Your task to perform on an android device: turn on showing notifications on the lock screen Image 0: 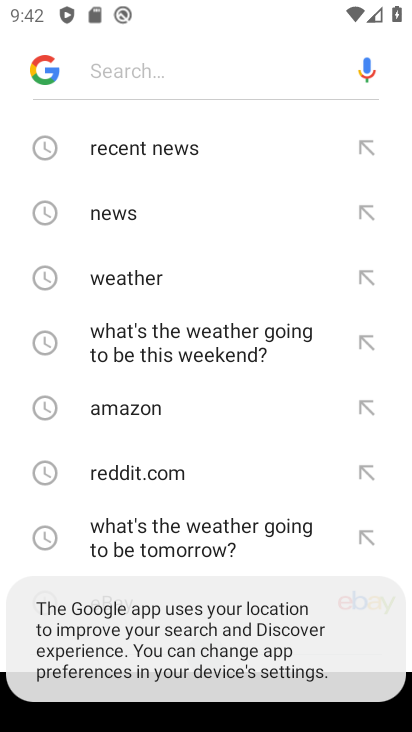
Step 0: press home button
Your task to perform on an android device: turn on showing notifications on the lock screen Image 1: 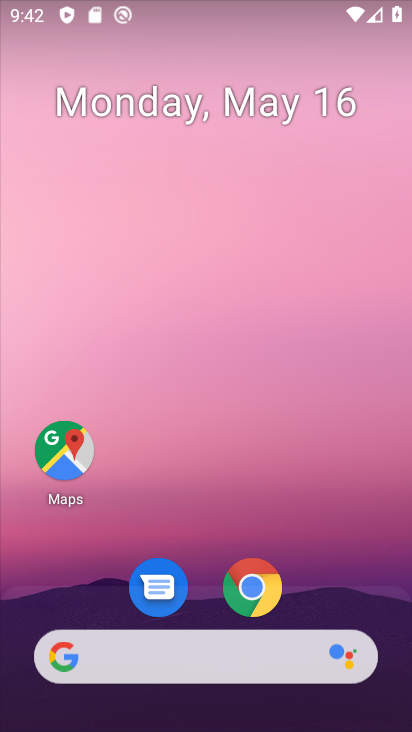
Step 1: drag from (248, 634) to (230, 2)
Your task to perform on an android device: turn on showing notifications on the lock screen Image 2: 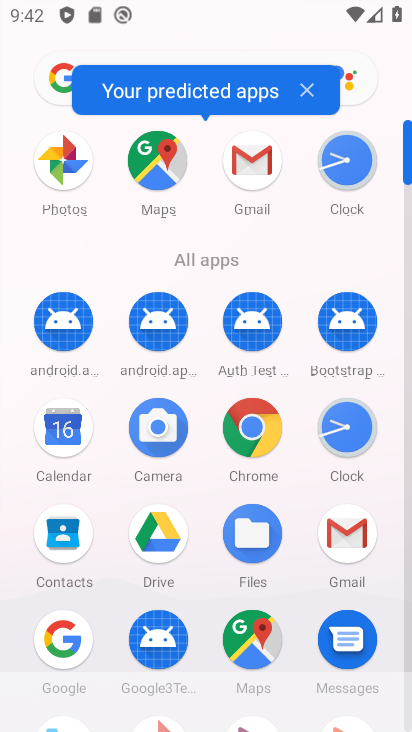
Step 2: drag from (201, 500) to (158, 13)
Your task to perform on an android device: turn on showing notifications on the lock screen Image 3: 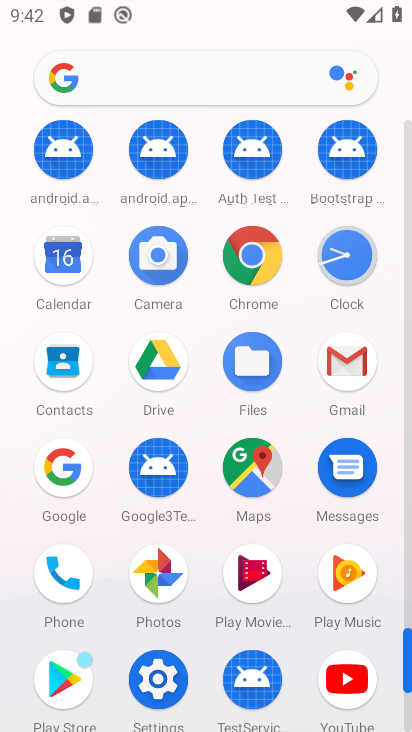
Step 3: click (170, 655)
Your task to perform on an android device: turn on showing notifications on the lock screen Image 4: 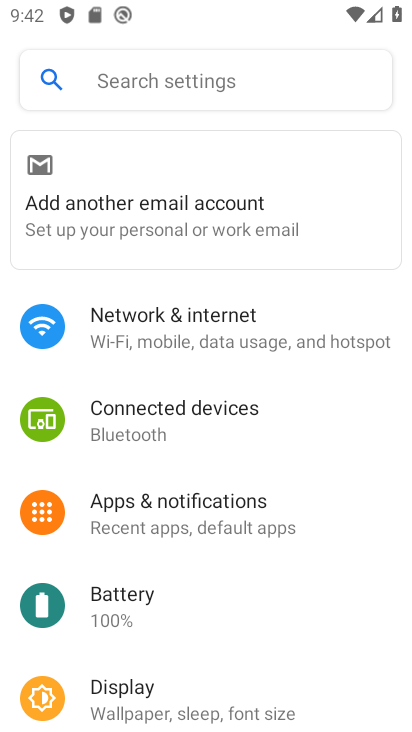
Step 4: drag from (211, 609) to (178, 209)
Your task to perform on an android device: turn on showing notifications on the lock screen Image 5: 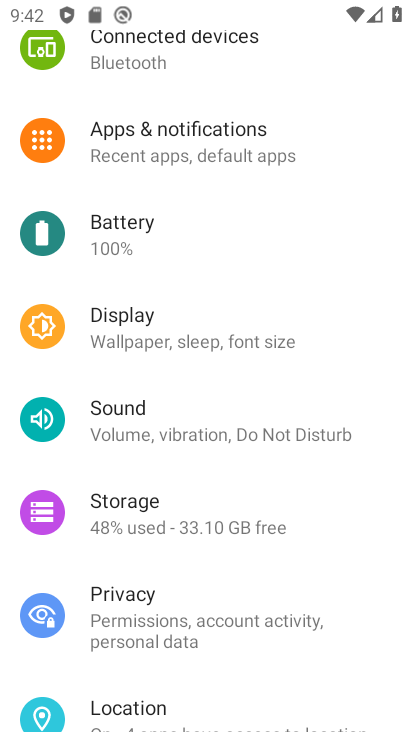
Step 5: click (185, 154)
Your task to perform on an android device: turn on showing notifications on the lock screen Image 6: 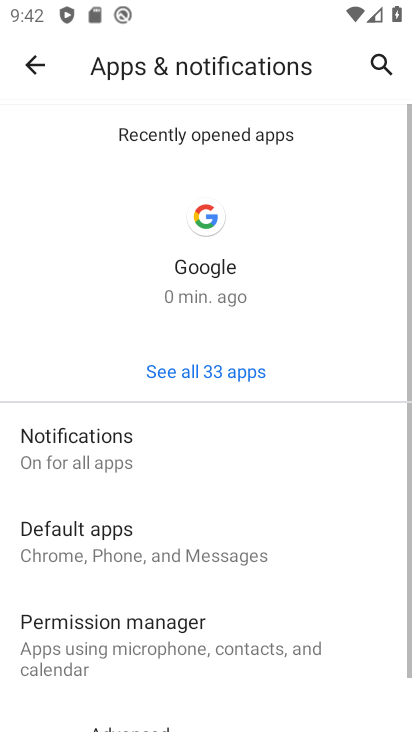
Step 6: click (168, 429)
Your task to perform on an android device: turn on showing notifications on the lock screen Image 7: 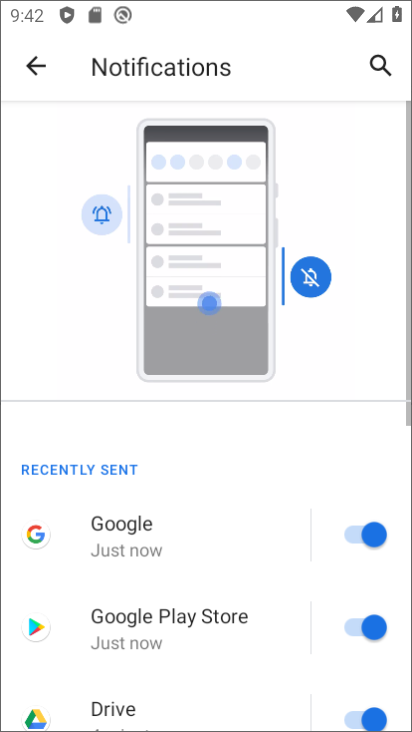
Step 7: drag from (167, 524) to (196, 34)
Your task to perform on an android device: turn on showing notifications on the lock screen Image 8: 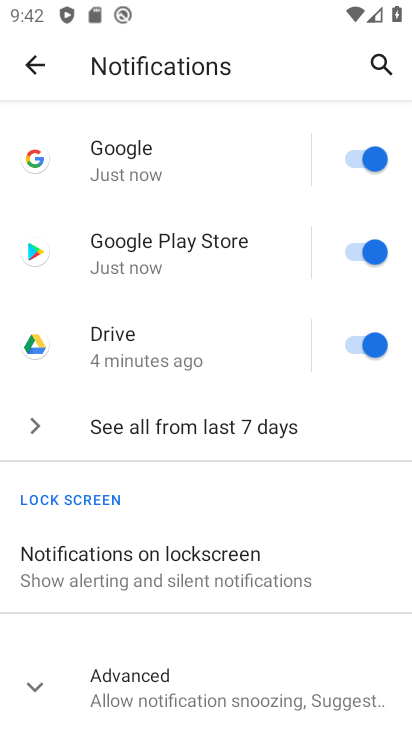
Step 8: click (213, 584)
Your task to perform on an android device: turn on showing notifications on the lock screen Image 9: 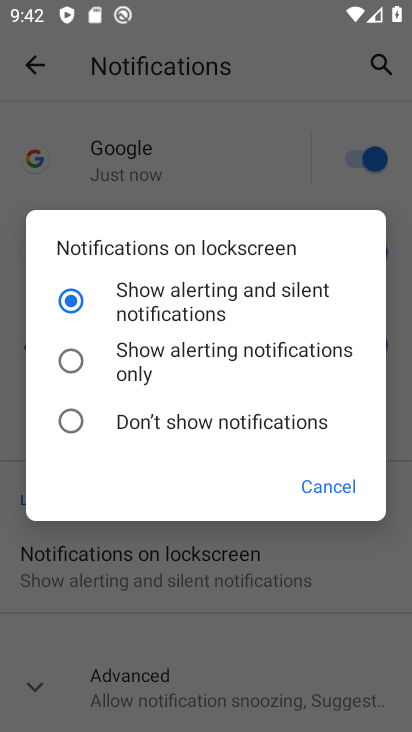
Step 9: task complete